Your task to perform on an android device: empty trash in the gmail app Image 0: 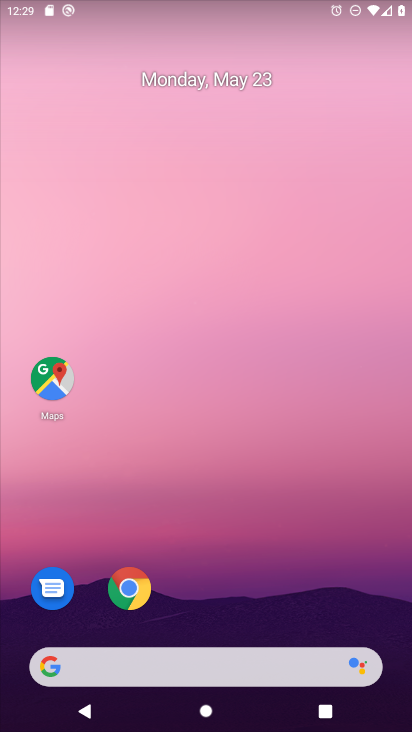
Step 0: drag from (269, 690) to (233, 203)
Your task to perform on an android device: empty trash in the gmail app Image 1: 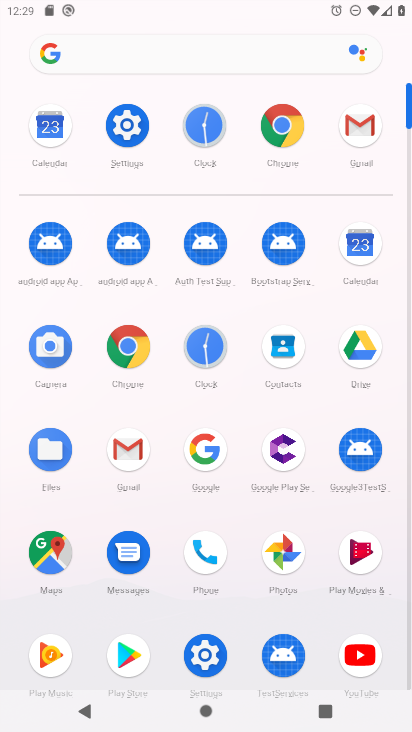
Step 1: click (129, 447)
Your task to perform on an android device: empty trash in the gmail app Image 2: 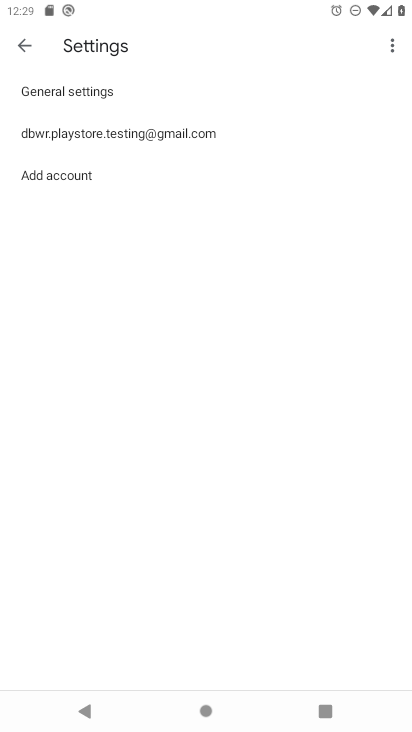
Step 2: click (2, 57)
Your task to perform on an android device: empty trash in the gmail app Image 3: 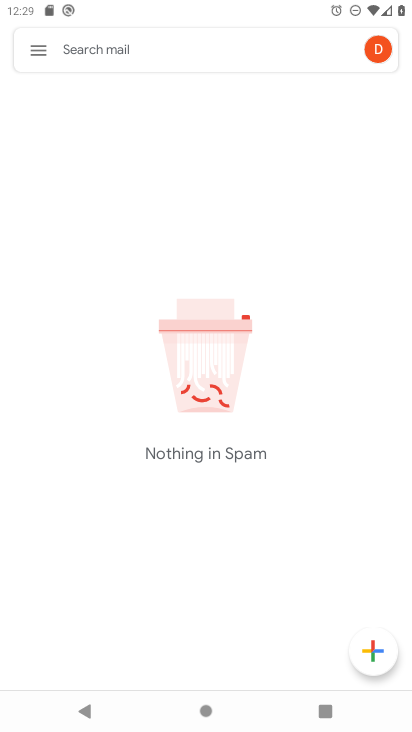
Step 3: click (34, 66)
Your task to perform on an android device: empty trash in the gmail app Image 4: 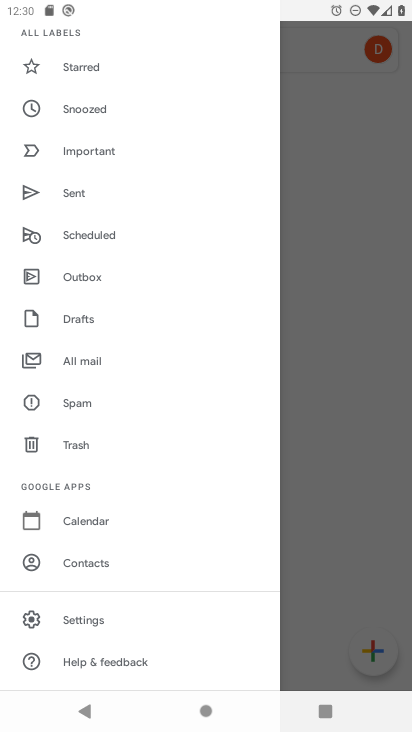
Step 4: click (88, 435)
Your task to perform on an android device: empty trash in the gmail app Image 5: 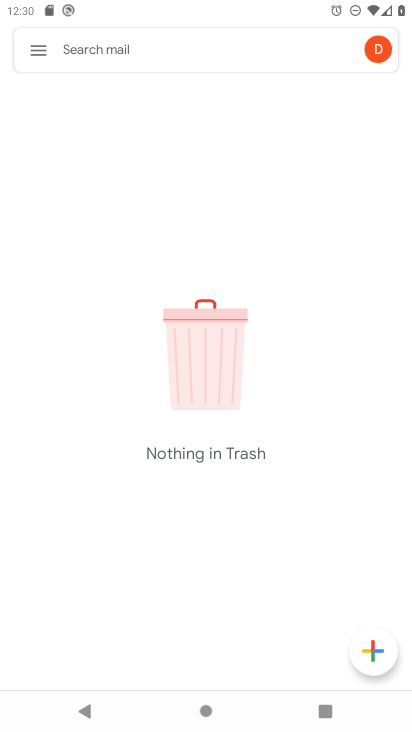
Step 5: task complete